Your task to perform on an android device: Go to Google maps Image 0: 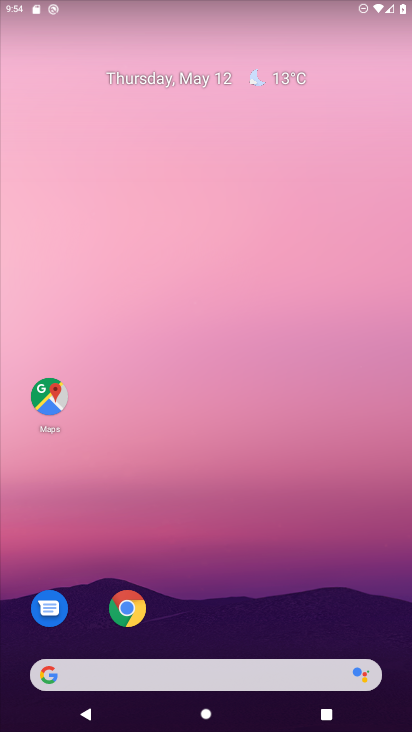
Step 0: click (53, 398)
Your task to perform on an android device: Go to Google maps Image 1: 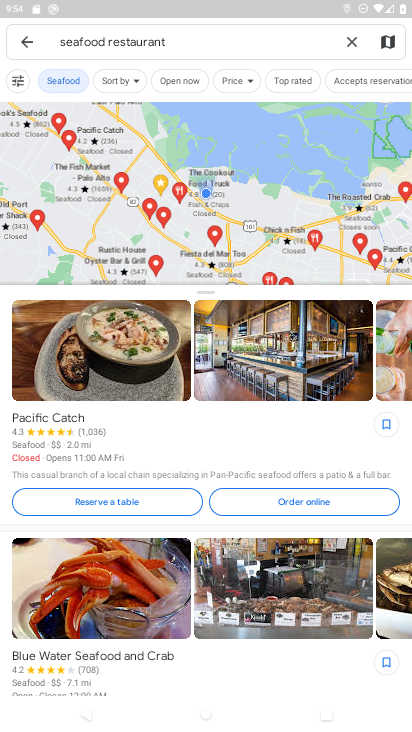
Step 1: task complete